Your task to perform on an android device: star an email in the gmail app Image 0: 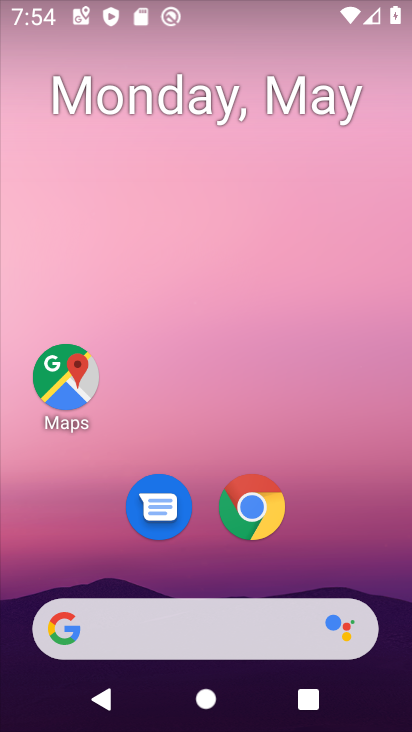
Step 0: drag from (202, 564) to (245, 61)
Your task to perform on an android device: star an email in the gmail app Image 1: 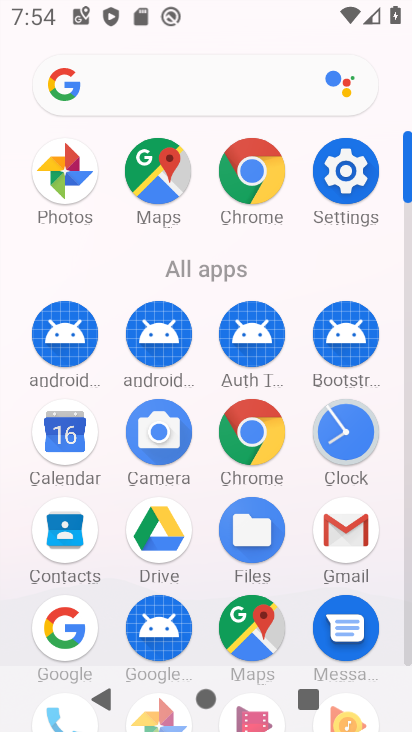
Step 1: click (350, 525)
Your task to perform on an android device: star an email in the gmail app Image 2: 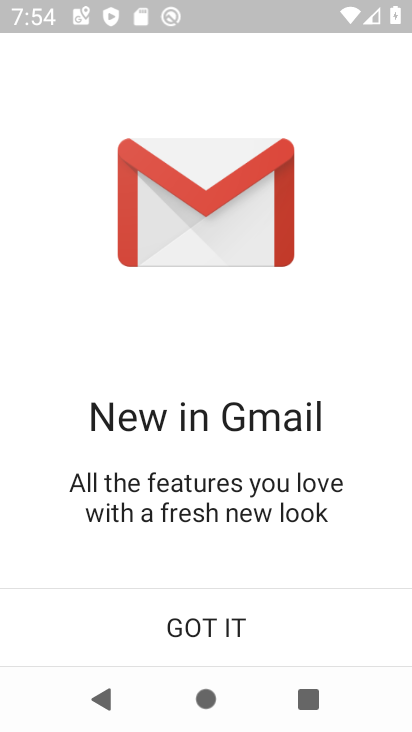
Step 2: click (217, 630)
Your task to perform on an android device: star an email in the gmail app Image 3: 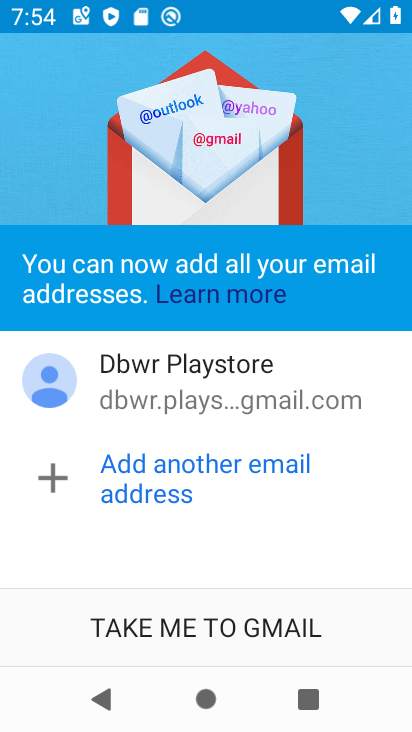
Step 3: click (221, 641)
Your task to perform on an android device: star an email in the gmail app Image 4: 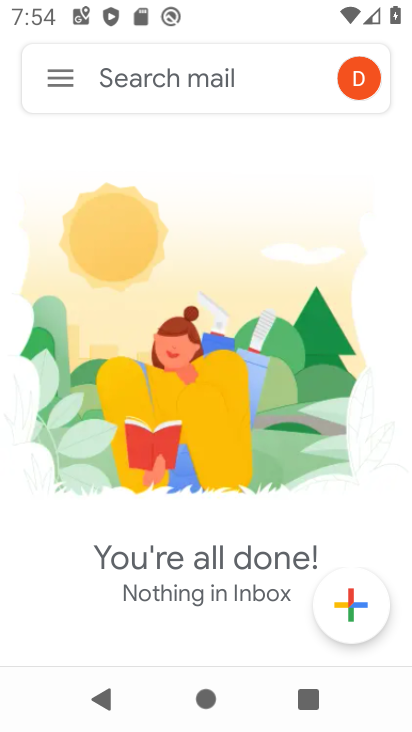
Step 4: click (49, 67)
Your task to perform on an android device: star an email in the gmail app Image 5: 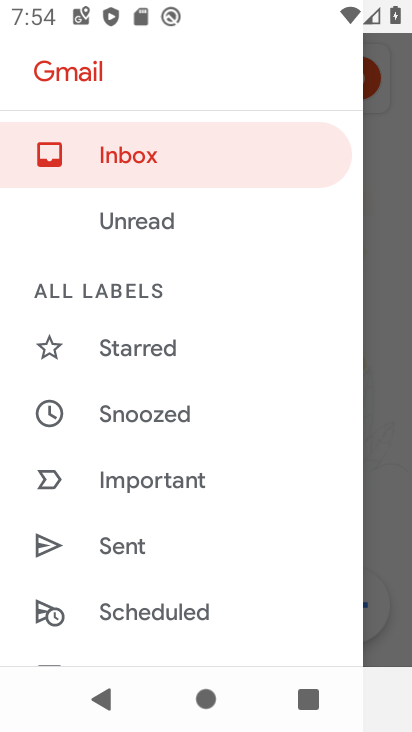
Step 5: drag from (163, 575) to (198, 292)
Your task to perform on an android device: star an email in the gmail app Image 6: 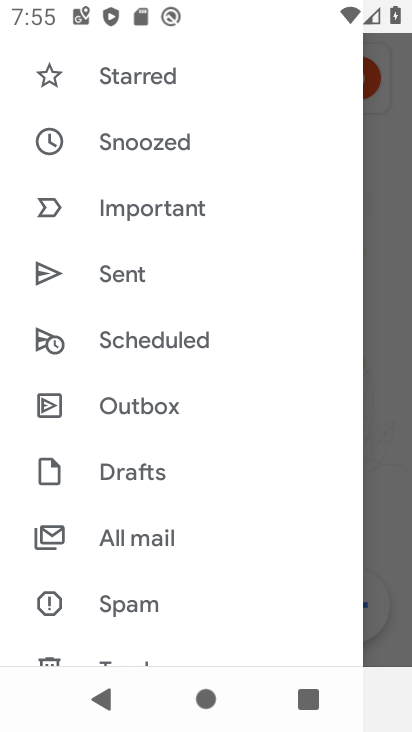
Step 6: click (153, 529)
Your task to perform on an android device: star an email in the gmail app Image 7: 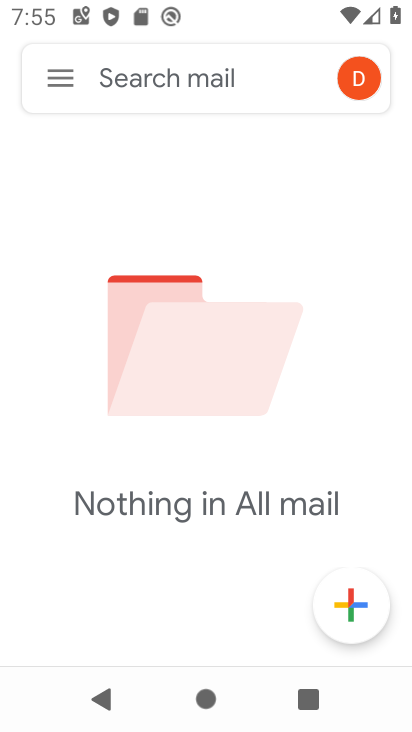
Step 7: task complete